Your task to perform on an android device: uninstall "Truecaller" Image 0: 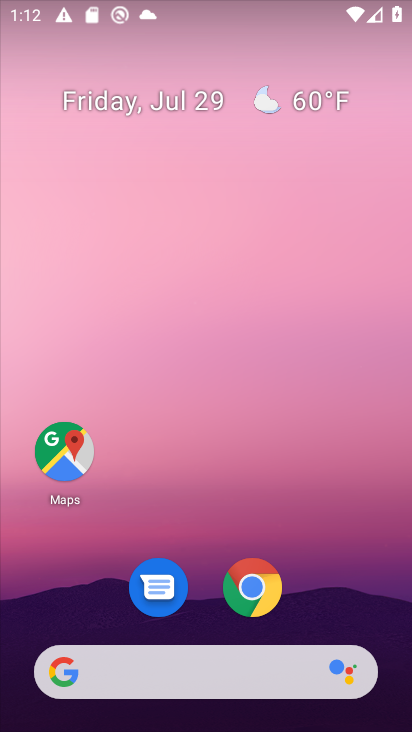
Step 0: drag from (234, 671) to (260, 19)
Your task to perform on an android device: uninstall "Truecaller" Image 1: 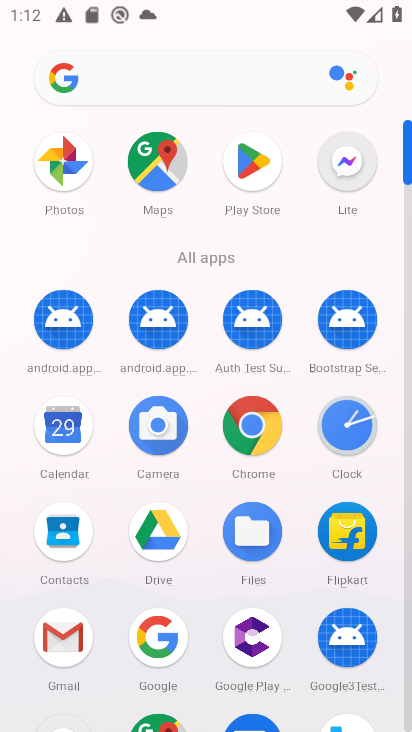
Step 1: click (254, 156)
Your task to perform on an android device: uninstall "Truecaller" Image 2: 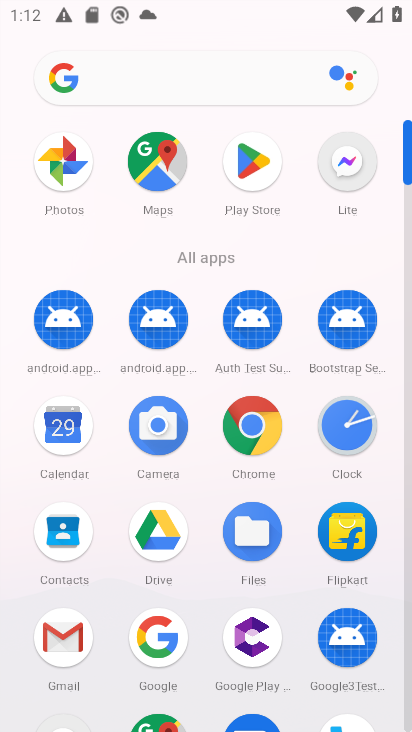
Step 2: click (254, 156)
Your task to perform on an android device: uninstall "Truecaller" Image 3: 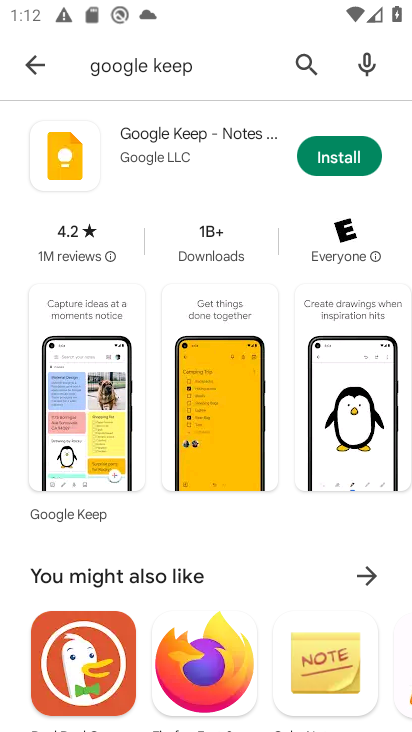
Step 3: click (311, 55)
Your task to perform on an android device: uninstall "Truecaller" Image 4: 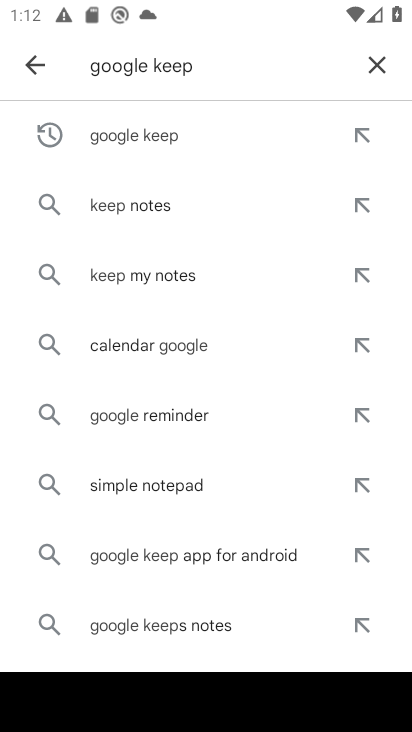
Step 4: click (379, 60)
Your task to perform on an android device: uninstall "Truecaller" Image 5: 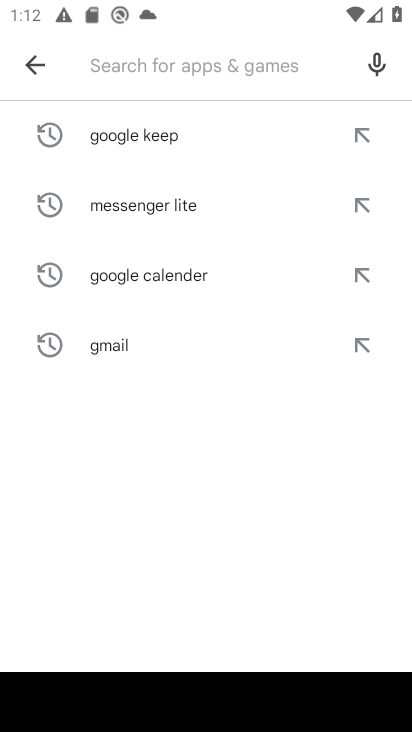
Step 5: type "truecaller"
Your task to perform on an android device: uninstall "Truecaller" Image 6: 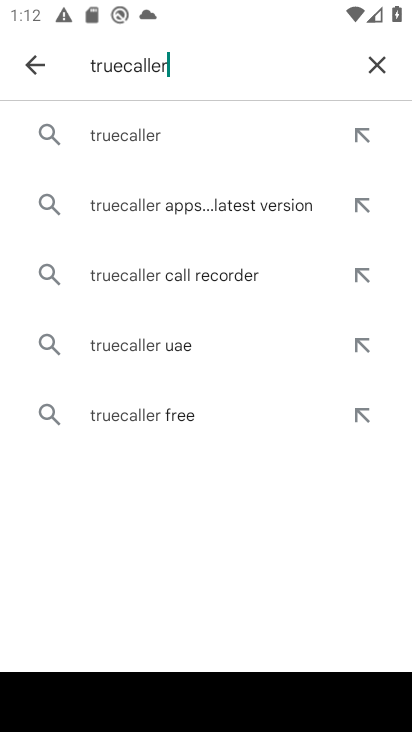
Step 6: click (258, 117)
Your task to perform on an android device: uninstall "Truecaller" Image 7: 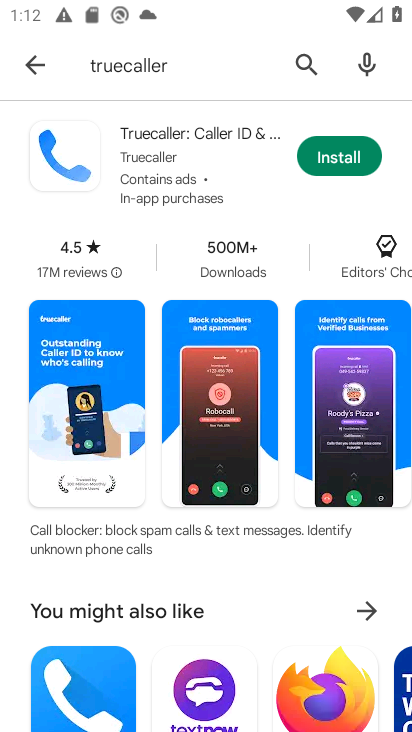
Step 7: task complete